Your task to perform on an android device: Search for razer nari on walmart, select the first entry, and add it to the cart. Image 0: 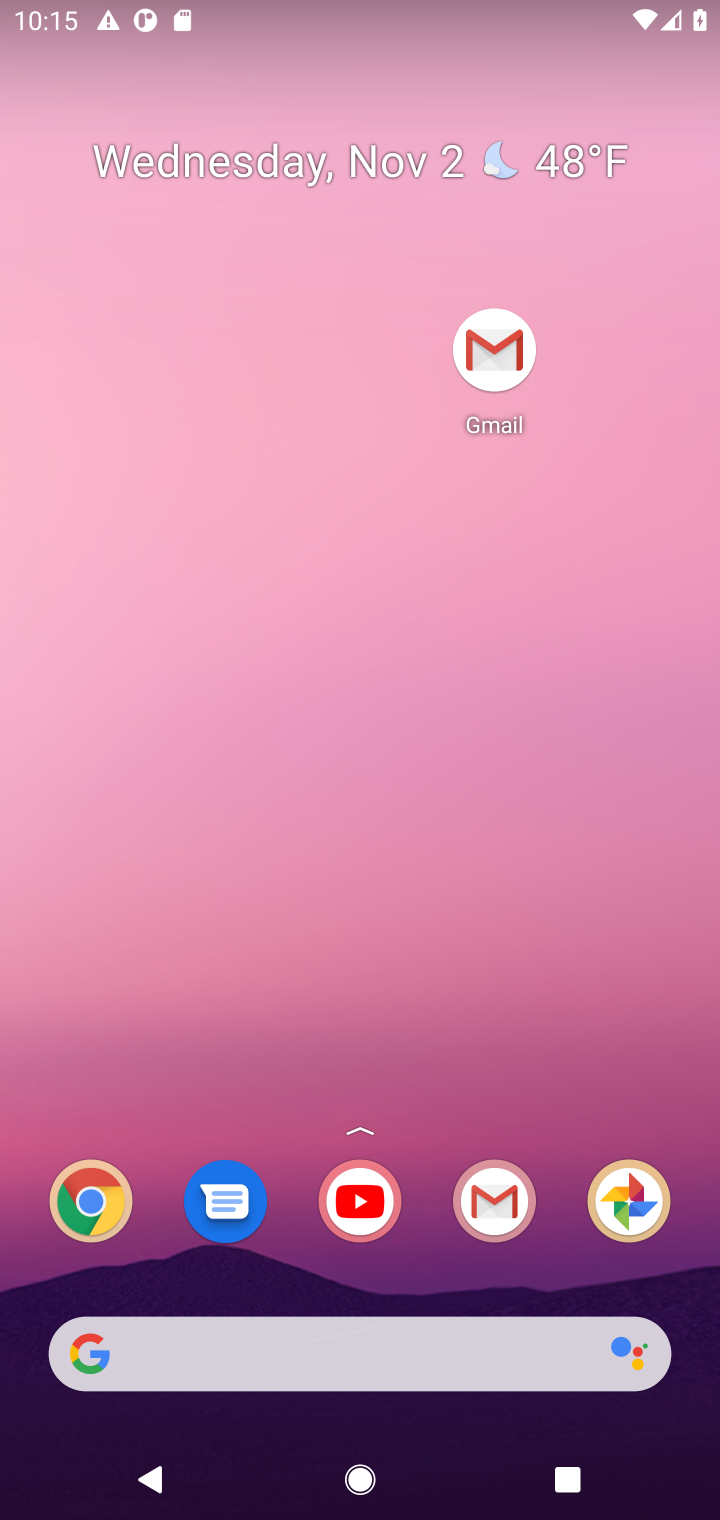
Step 0: drag from (414, 1295) to (366, 252)
Your task to perform on an android device: Search for razer nari on walmart, select the first entry, and add it to the cart. Image 1: 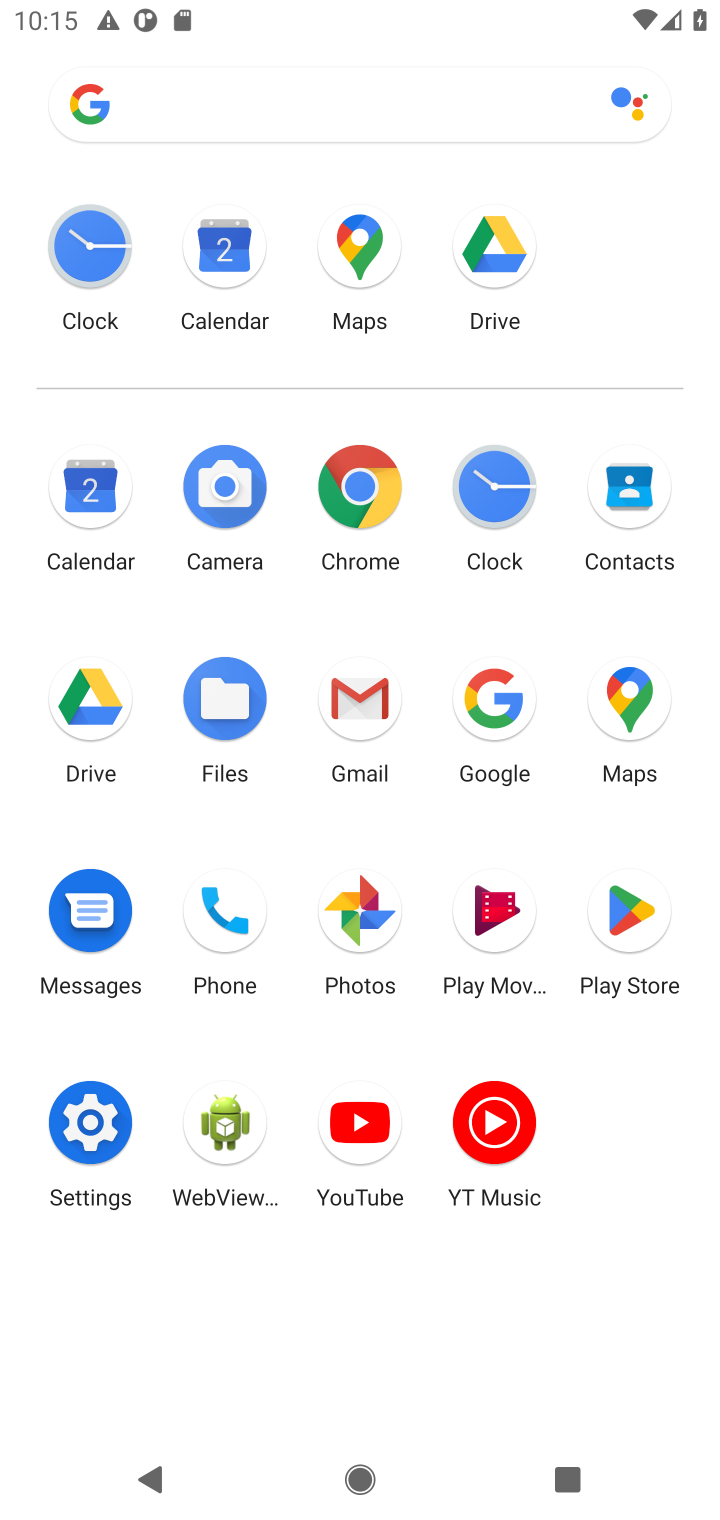
Step 1: click (368, 486)
Your task to perform on an android device: Search for razer nari on walmart, select the first entry, and add it to the cart. Image 2: 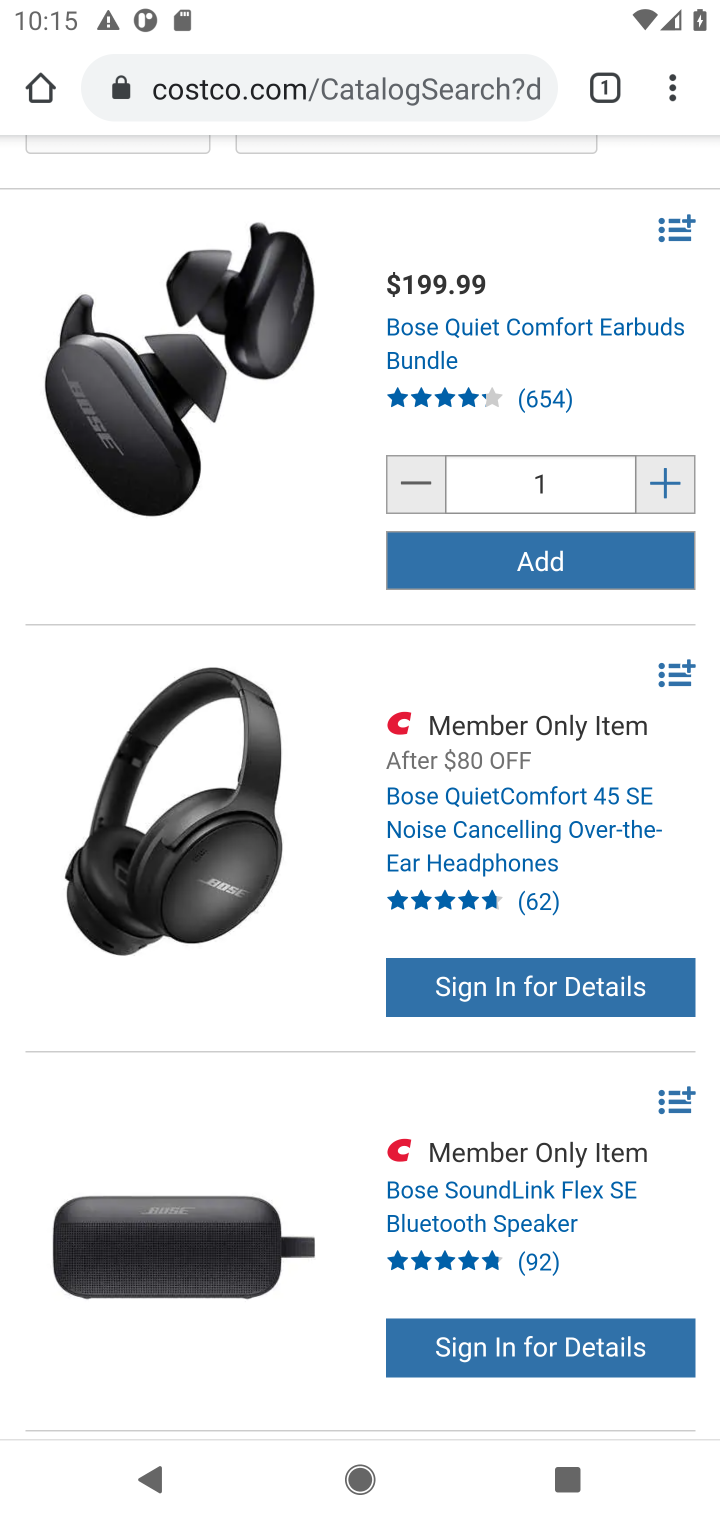
Step 2: click (445, 76)
Your task to perform on an android device: Search for razer nari on walmart, select the first entry, and add it to the cart. Image 3: 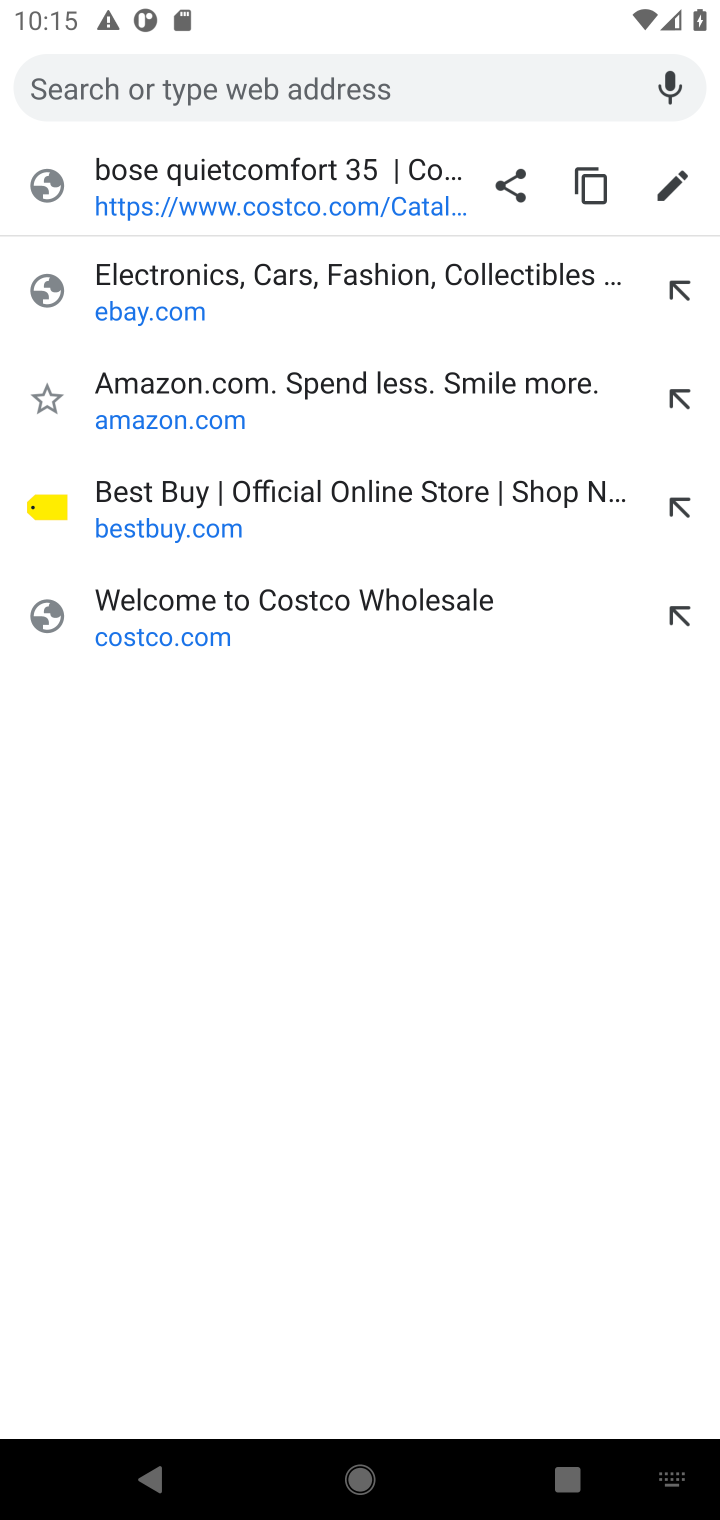
Step 3: type "walmart.com"
Your task to perform on an android device: Search for razer nari on walmart, select the first entry, and add it to the cart. Image 4: 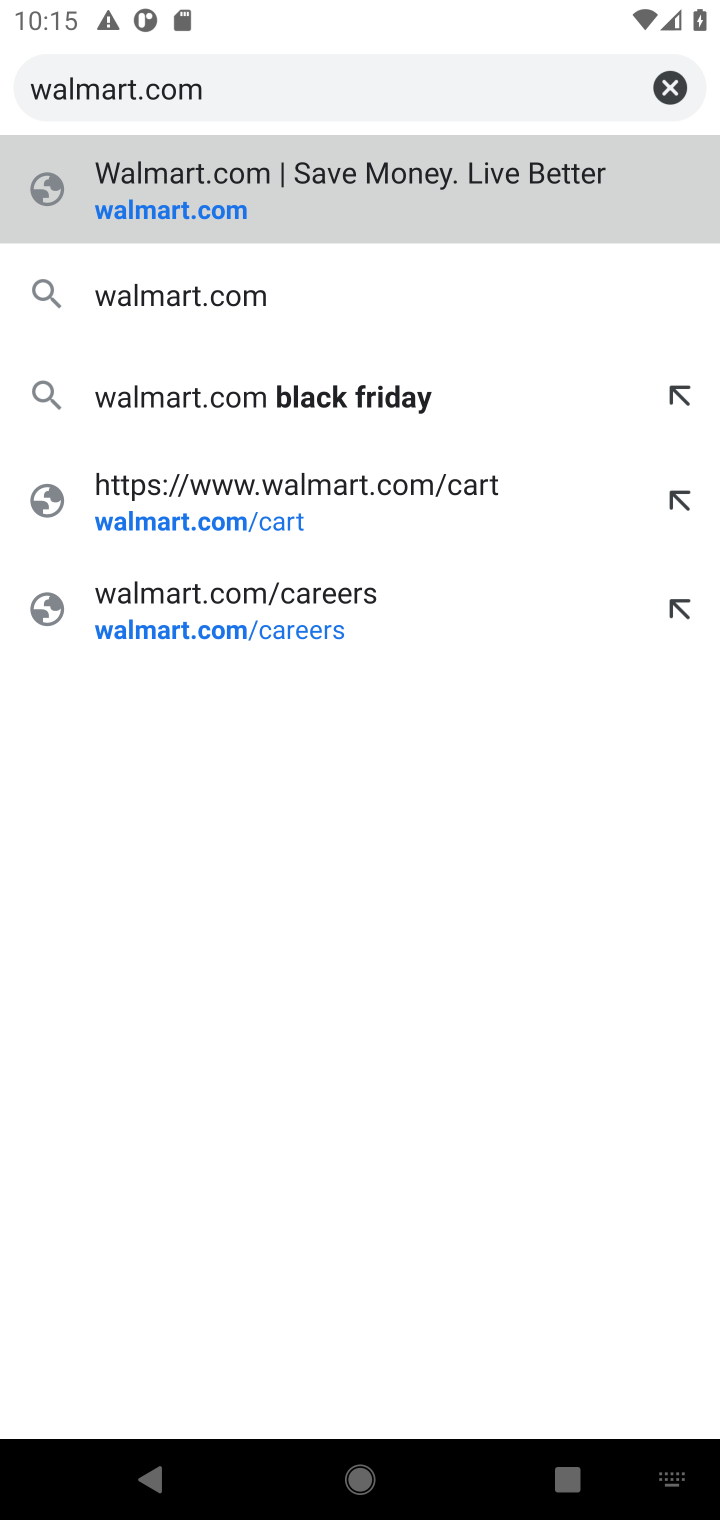
Step 4: press enter
Your task to perform on an android device: Search for razer nari on walmart, select the first entry, and add it to the cart. Image 5: 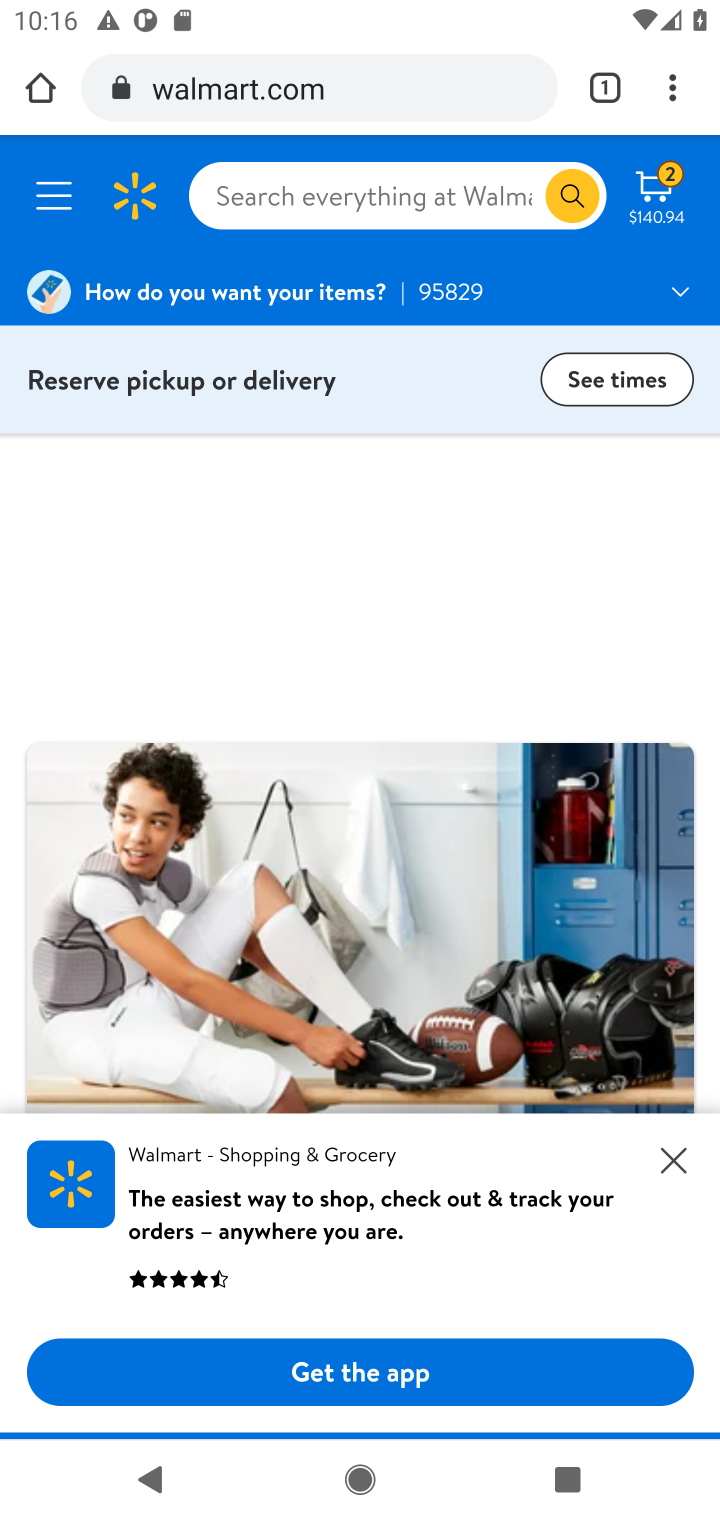
Step 5: click (245, 204)
Your task to perform on an android device: Search for razer nari on walmart, select the first entry, and add it to the cart. Image 6: 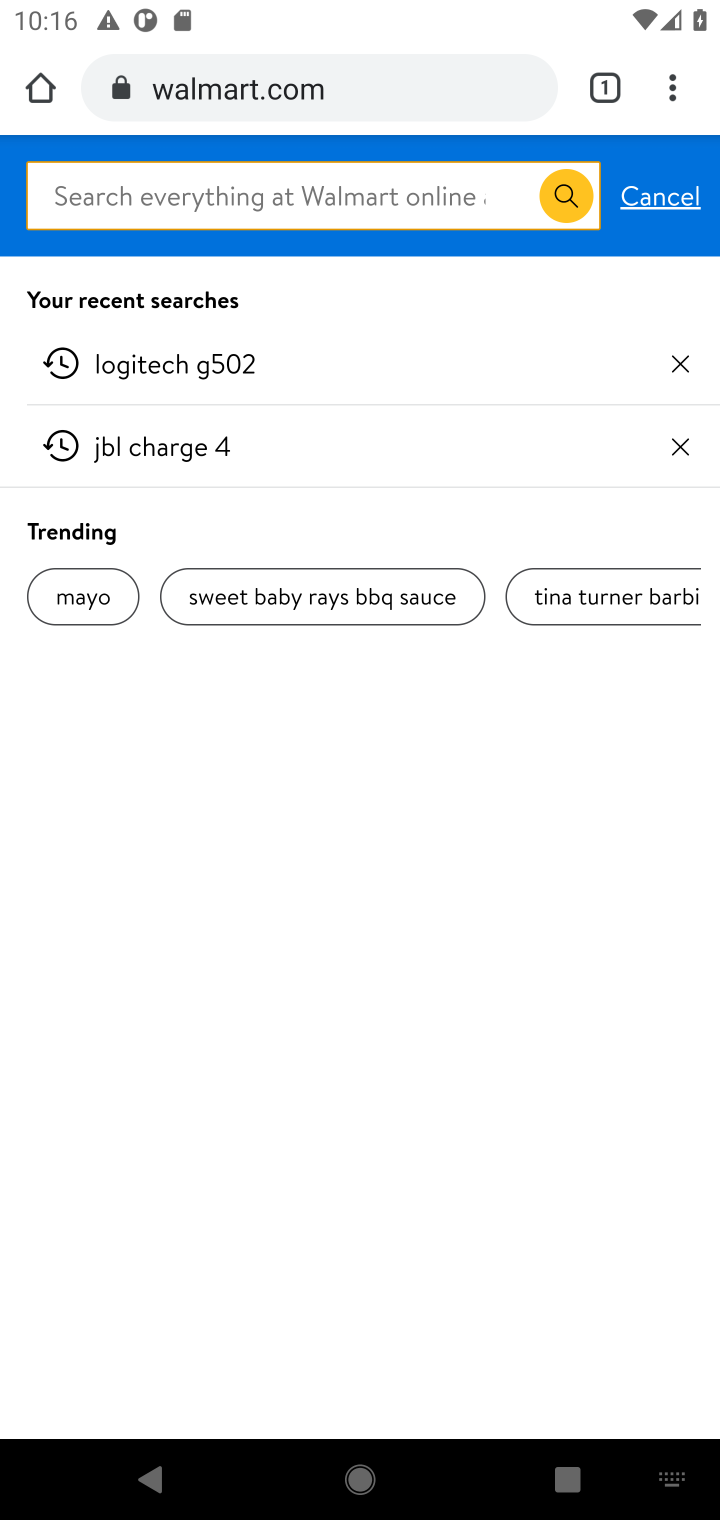
Step 6: type "razer nari"
Your task to perform on an android device: Search for razer nari on walmart, select the first entry, and add it to the cart. Image 7: 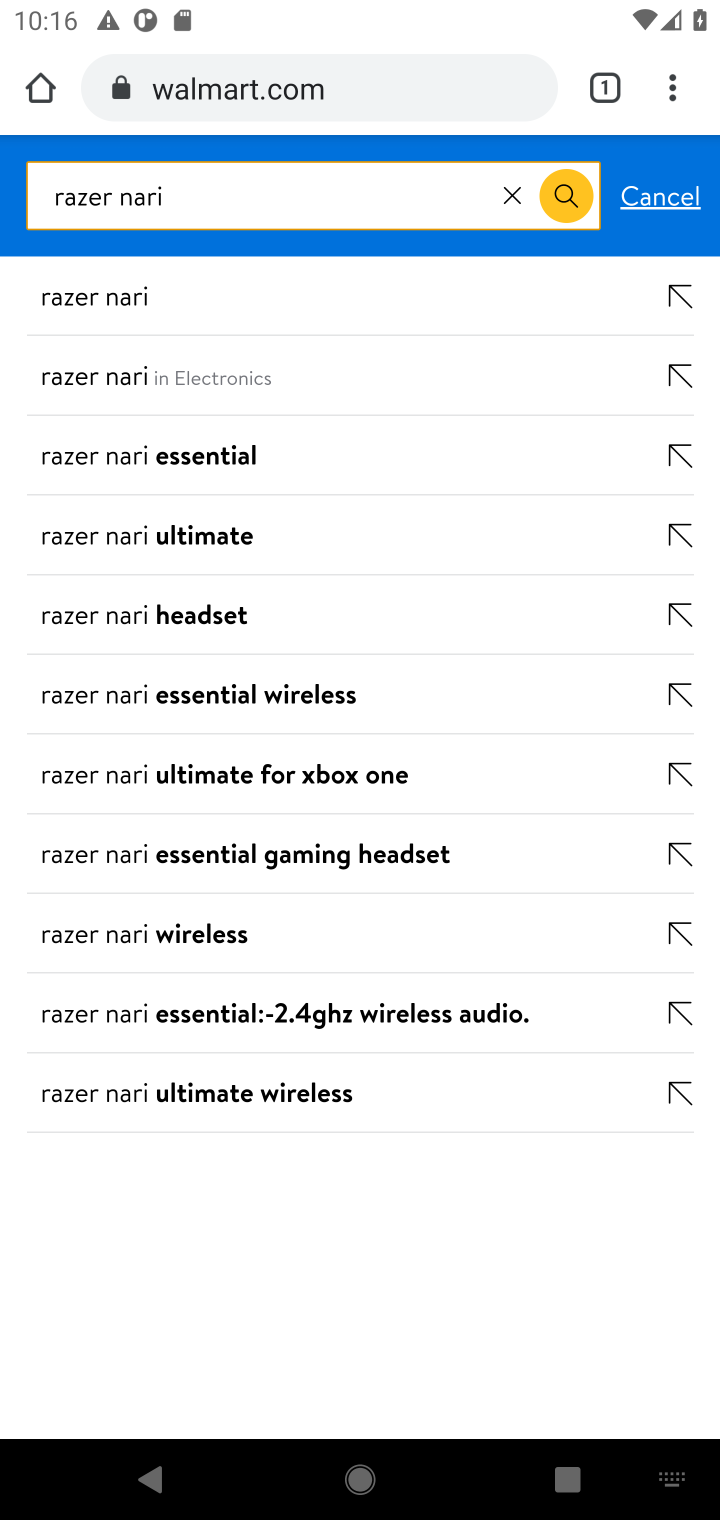
Step 7: press enter
Your task to perform on an android device: Search for razer nari on walmart, select the first entry, and add it to the cart. Image 8: 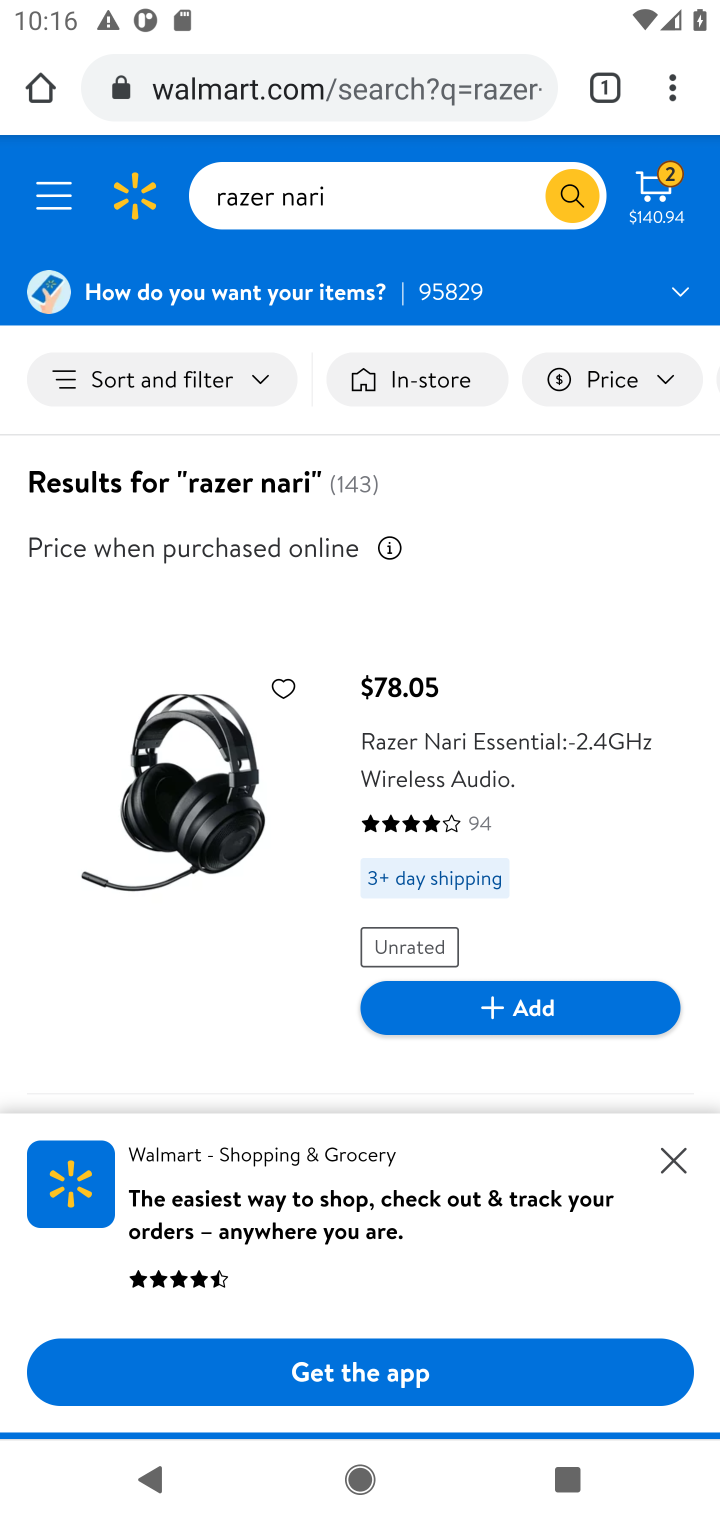
Step 8: drag from (202, 947) to (257, 629)
Your task to perform on an android device: Search for razer nari on walmart, select the first entry, and add it to the cart. Image 9: 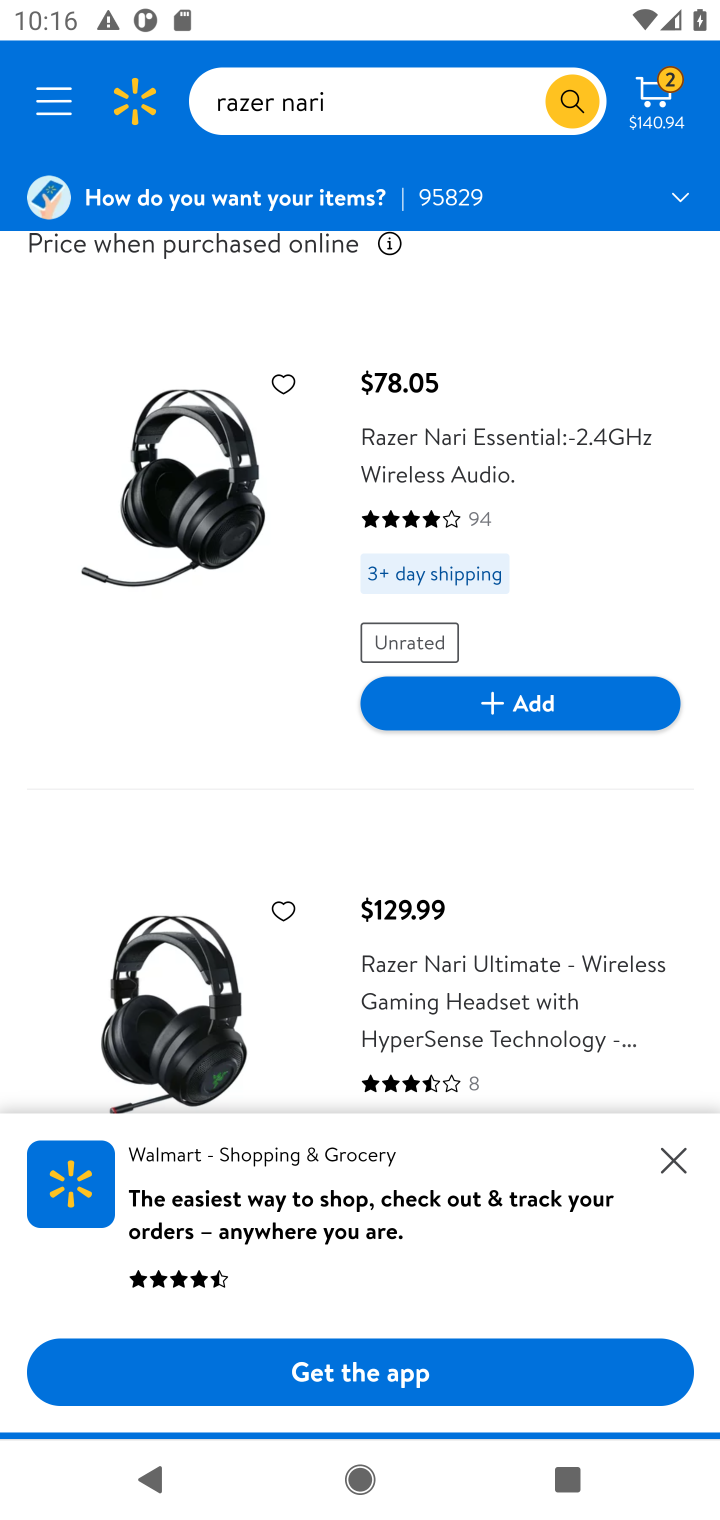
Step 9: click (502, 697)
Your task to perform on an android device: Search for razer nari on walmart, select the first entry, and add it to the cart. Image 10: 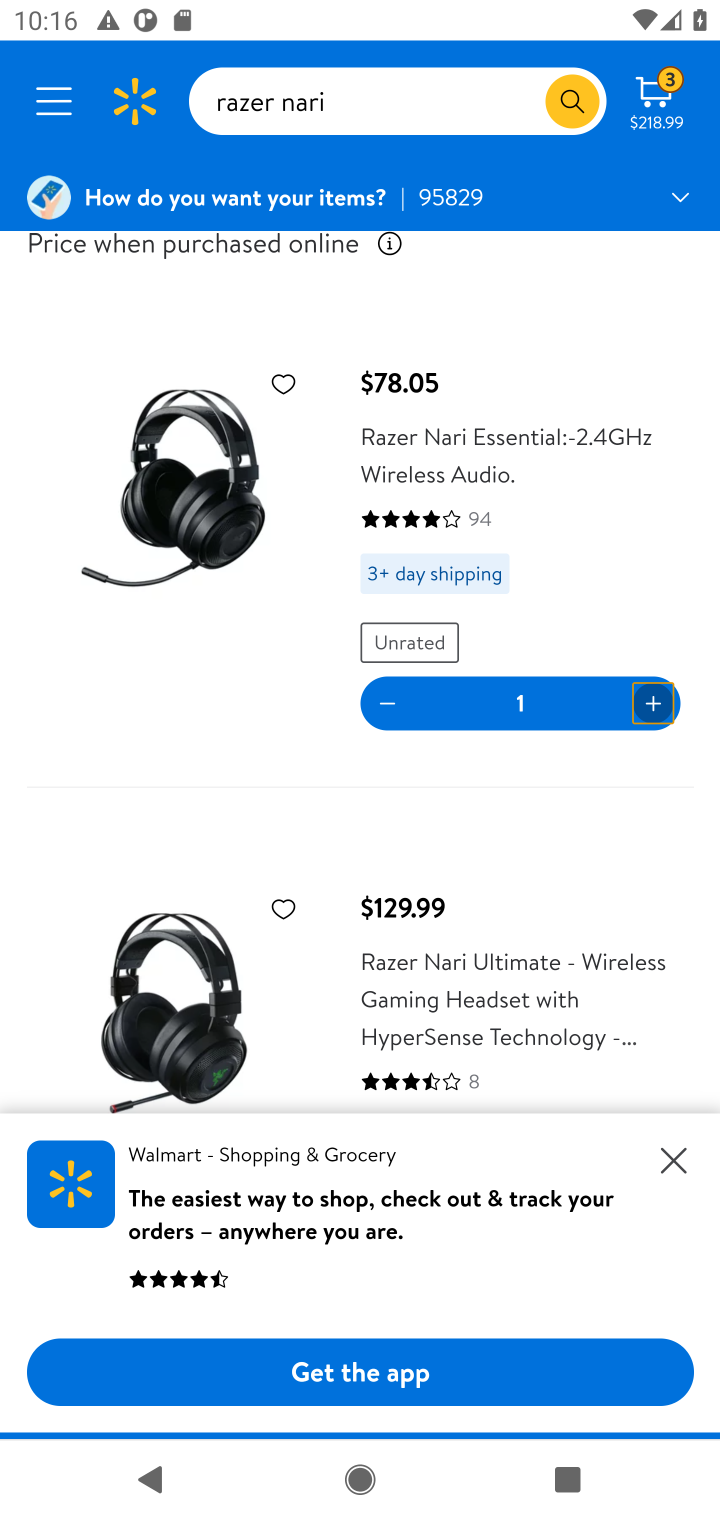
Step 10: task complete